Your task to perform on an android device: Go to network settings Image 0: 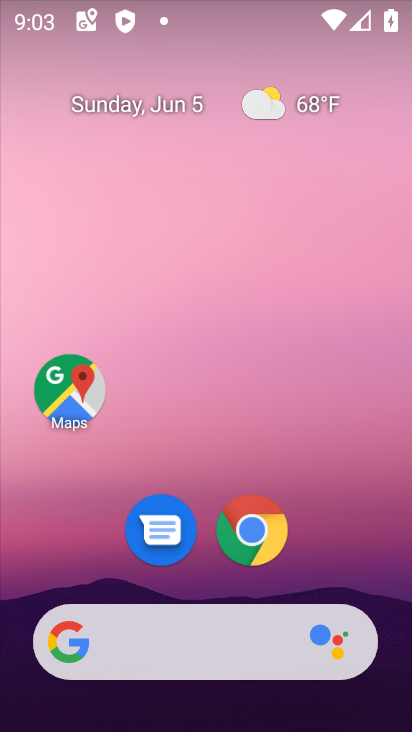
Step 0: drag from (378, 608) to (340, 87)
Your task to perform on an android device: Go to network settings Image 1: 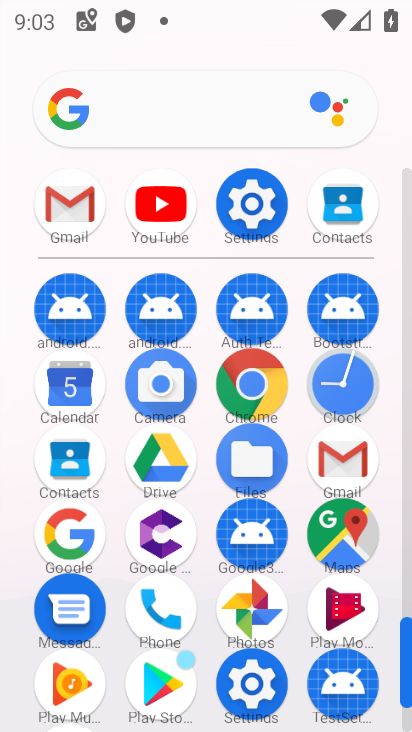
Step 1: click (405, 601)
Your task to perform on an android device: Go to network settings Image 2: 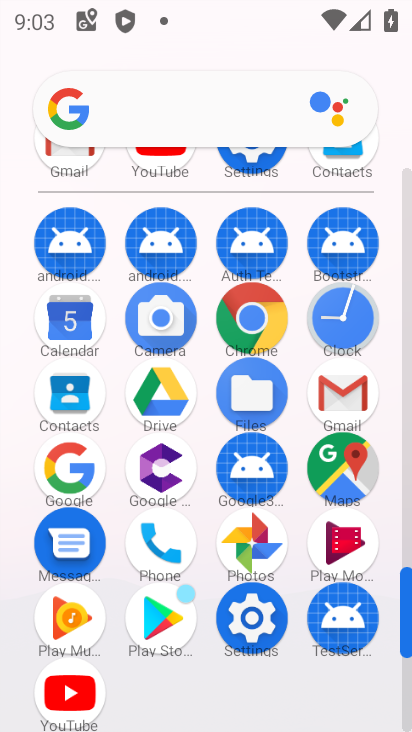
Step 2: click (245, 621)
Your task to perform on an android device: Go to network settings Image 3: 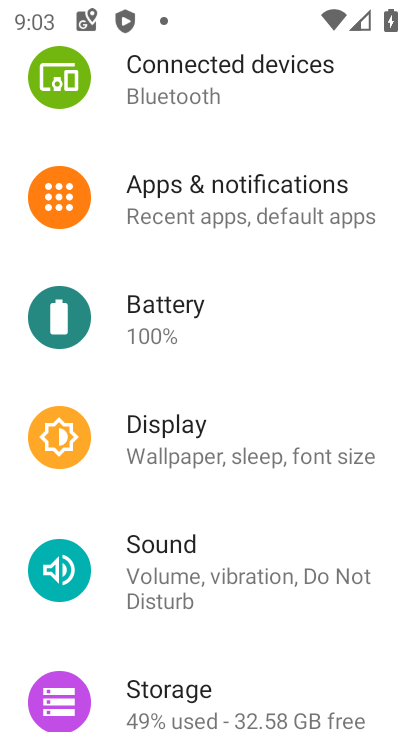
Step 3: drag from (359, 143) to (360, 553)
Your task to perform on an android device: Go to network settings Image 4: 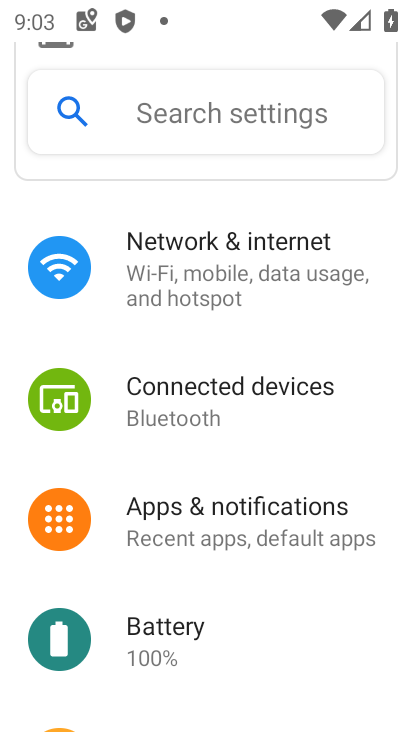
Step 4: click (177, 250)
Your task to perform on an android device: Go to network settings Image 5: 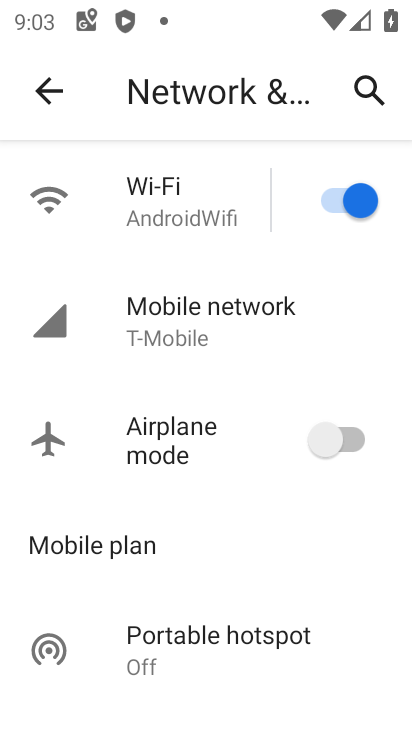
Step 5: click (203, 309)
Your task to perform on an android device: Go to network settings Image 6: 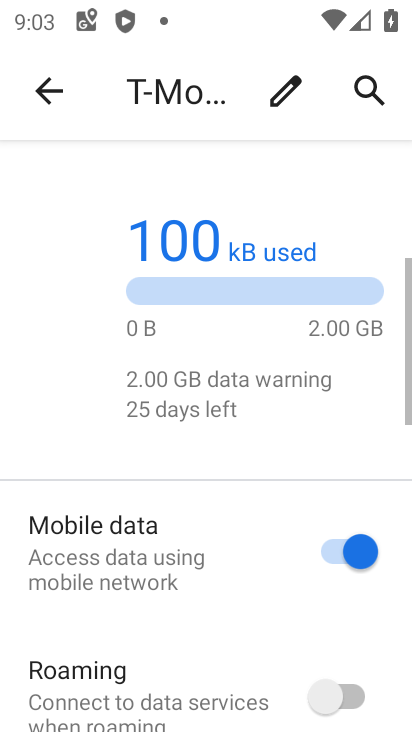
Step 6: task complete